Your task to perform on an android device: change notifications settings Image 0: 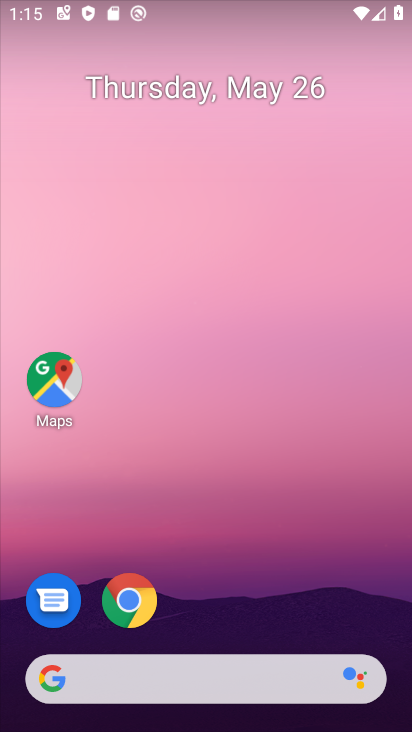
Step 0: drag from (234, 550) to (287, 82)
Your task to perform on an android device: change notifications settings Image 1: 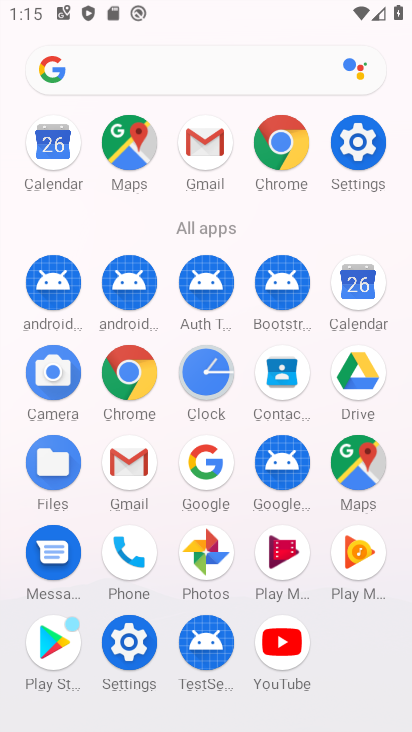
Step 1: click (346, 163)
Your task to perform on an android device: change notifications settings Image 2: 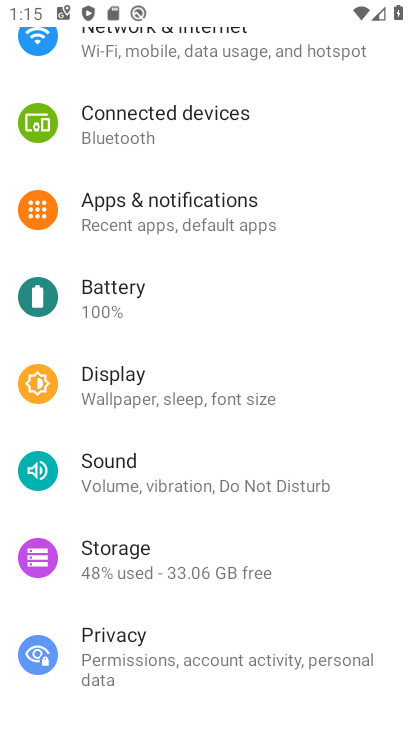
Step 2: click (106, 211)
Your task to perform on an android device: change notifications settings Image 3: 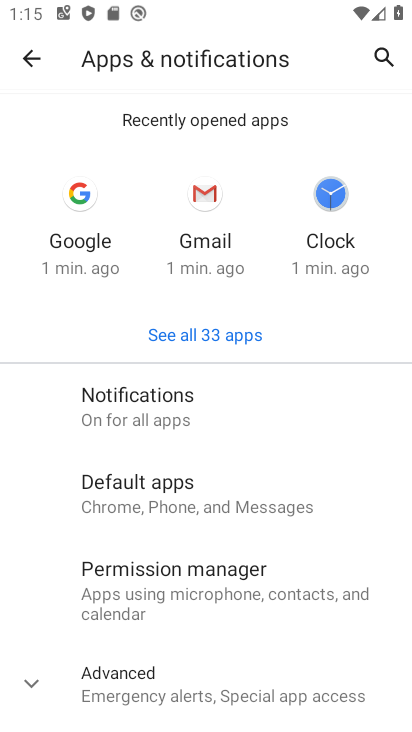
Step 3: click (119, 408)
Your task to perform on an android device: change notifications settings Image 4: 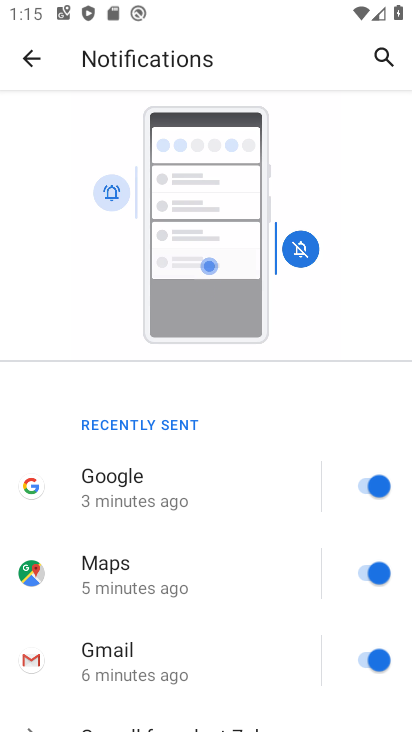
Step 4: drag from (190, 654) to (187, 312)
Your task to perform on an android device: change notifications settings Image 5: 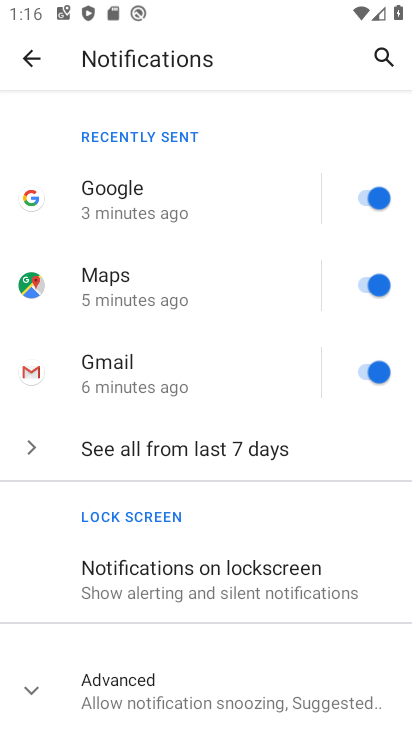
Step 5: click (243, 570)
Your task to perform on an android device: change notifications settings Image 6: 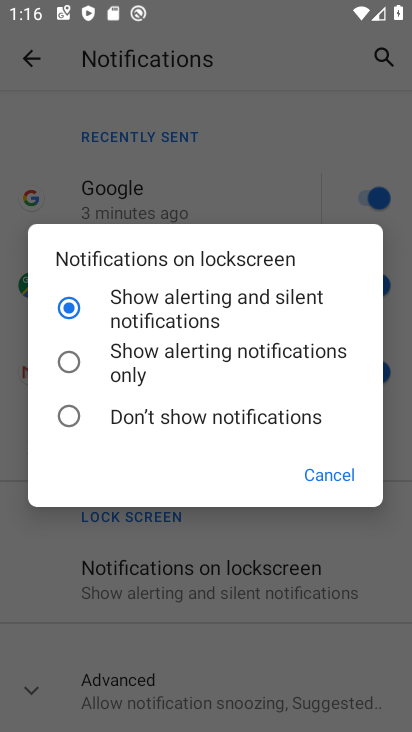
Step 6: click (70, 417)
Your task to perform on an android device: change notifications settings Image 7: 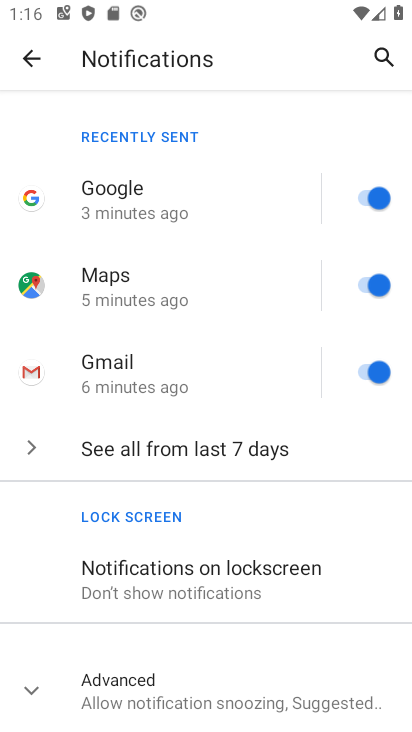
Step 7: task complete